Your task to perform on an android device: Show me recent news Image 0: 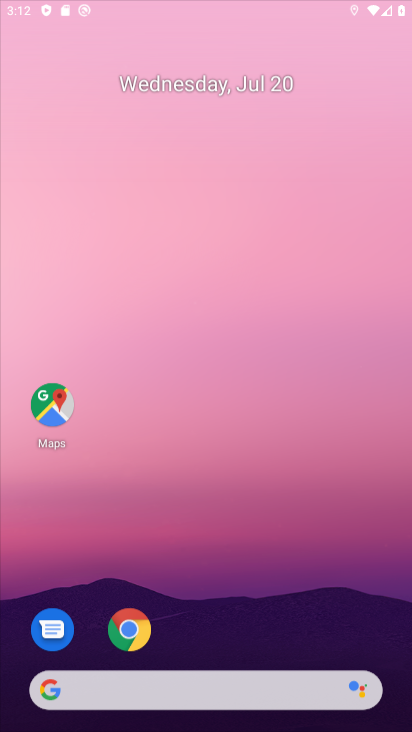
Step 0: press home button
Your task to perform on an android device: Show me recent news Image 1: 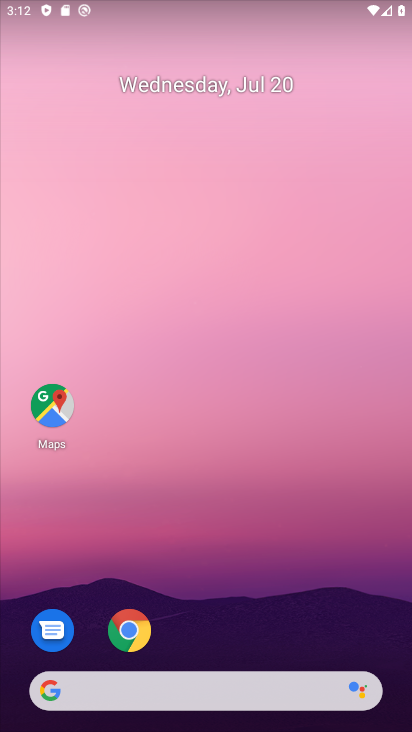
Step 1: click (41, 692)
Your task to perform on an android device: Show me recent news Image 2: 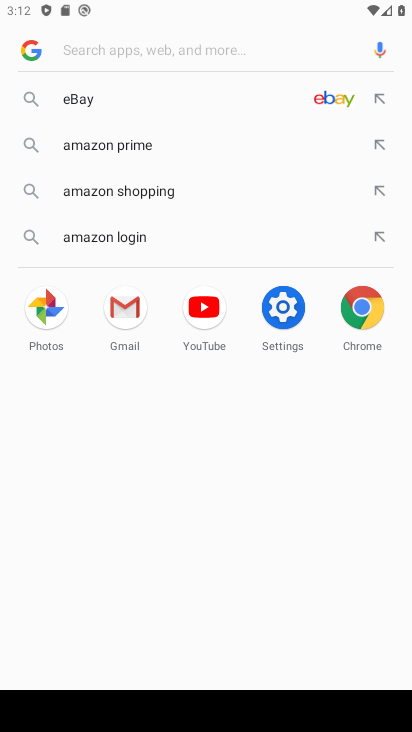
Step 2: type "recent news"
Your task to perform on an android device: Show me recent news Image 3: 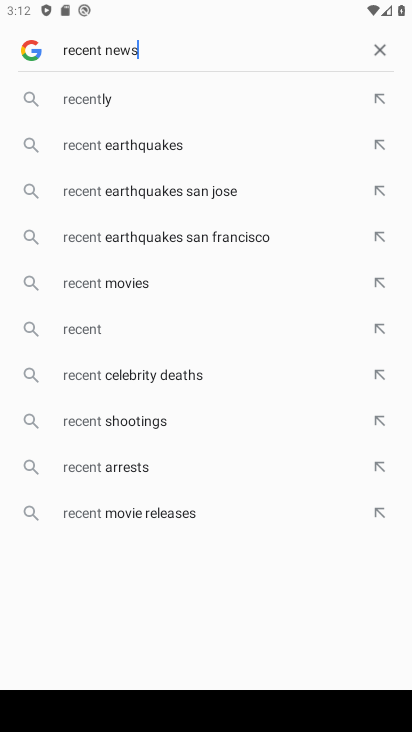
Step 3: press enter
Your task to perform on an android device: Show me recent news Image 4: 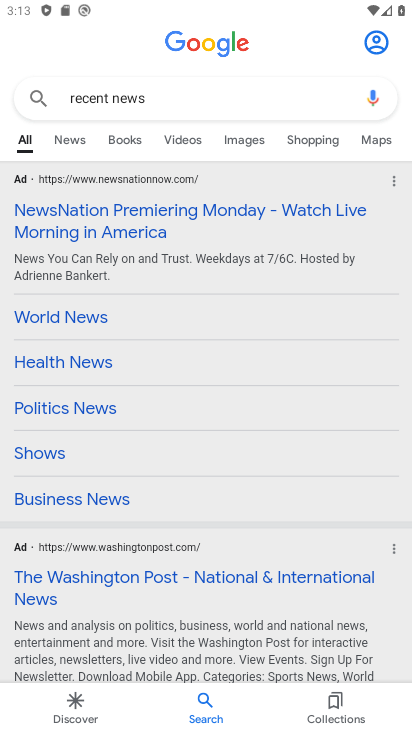
Step 4: task complete